Your task to perform on an android device: open app "Mercado Libre" (install if not already installed) Image 0: 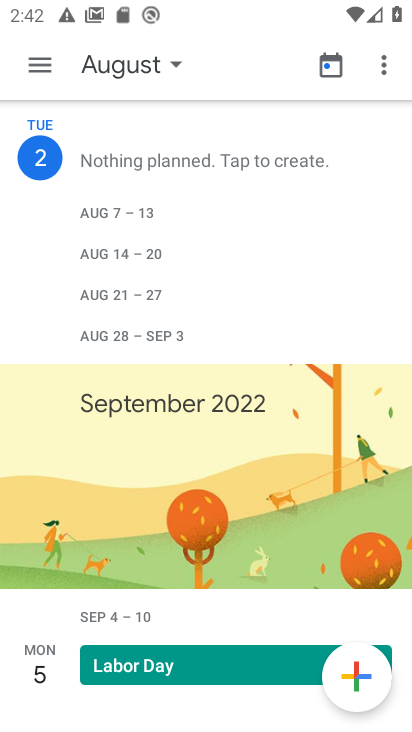
Step 0: press home button
Your task to perform on an android device: open app "Mercado Libre" (install if not already installed) Image 1: 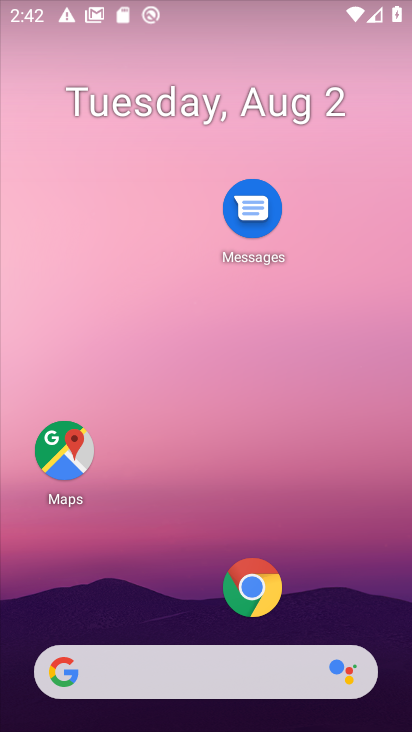
Step 1: drag from (122, 560) to (98, 224)
Your task to perform on an android device: open app "Mercado Libre" (install if not already installed) Image 2: 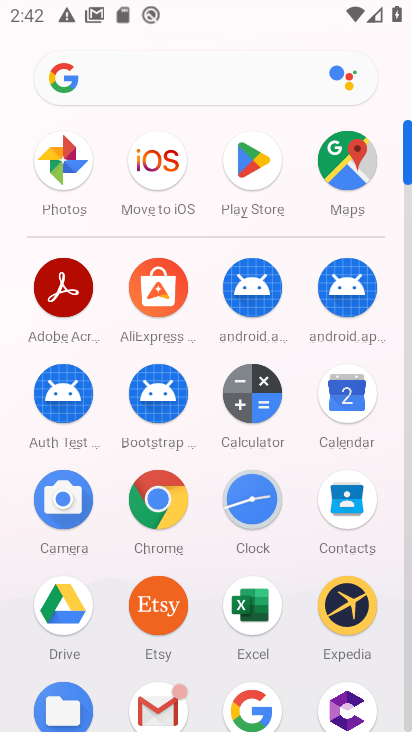
Step 2: click (250, 168)
Your task to perform on an android device: open app "Mercado Libre" (install if not already installed) Image 3: 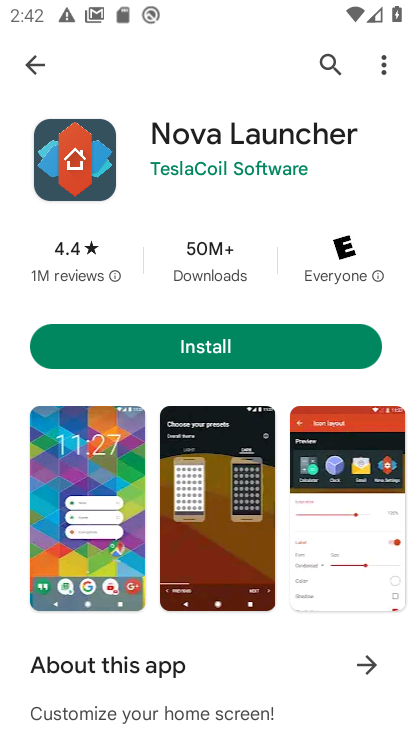
Step 3: click (318, 68)
Your task to perform on an android device: open app "Mercado Libre" (install if not already installed) Image 4: 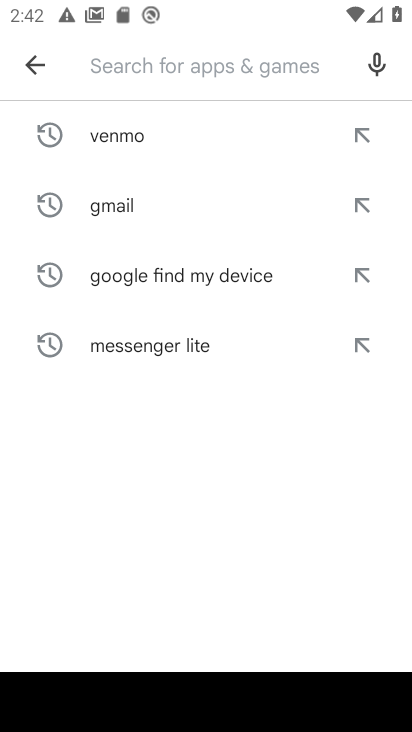
Step 4: type "Mercado Libre"
Your task to perform on an android device: open app "Mercado Libre" (install if not already installed) Image 5: 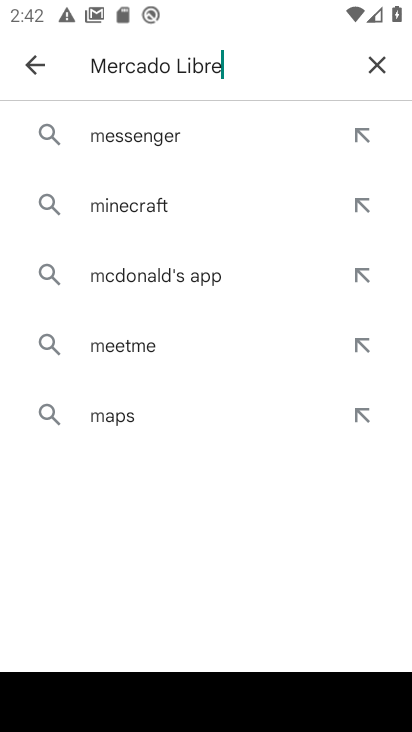
Step 5: type ""
Your task to perform on an android device: open app "Mercado Libre" (install if not already installed) Image 6: 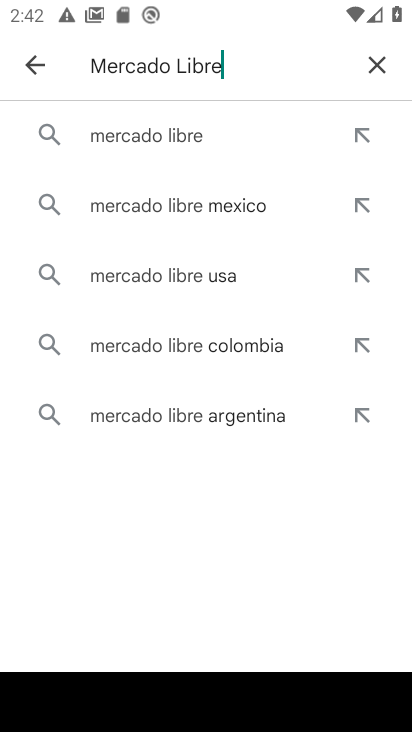
Step 6: click (185, 140)
Your task to perform on an android device: open app "Mercado Libre" (install if not already installed) Image 7: 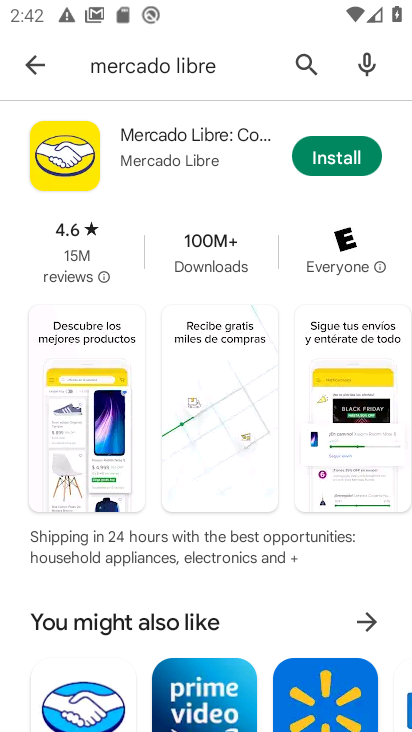
Step 7: click (308, 151)
Your task to perform on an android device: open app "Mercado Libre" (install if not already installed) Image 8: 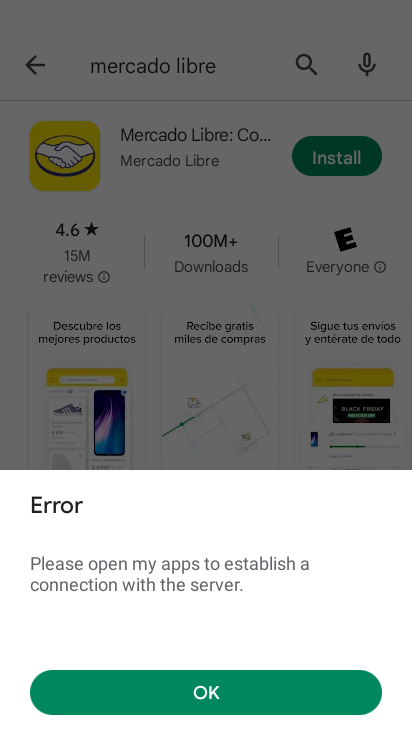
Step 8: task complete